Your task to perform on an android device: toggle wifi Image 0: 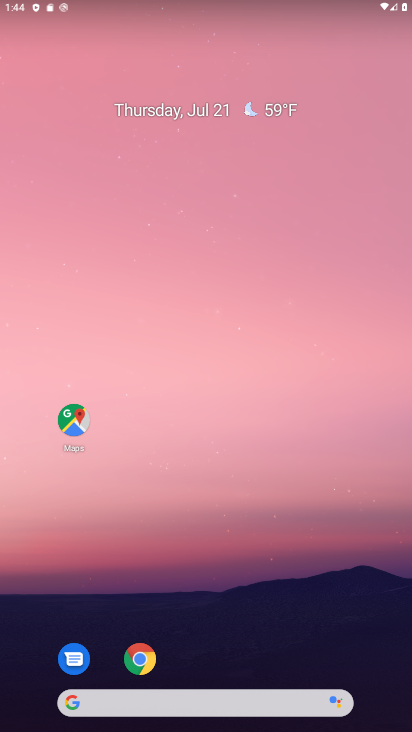
Step 0: drag from (193, 713) to (273, 41)
Your task to perform on an android device: toggle wifi Image 1: 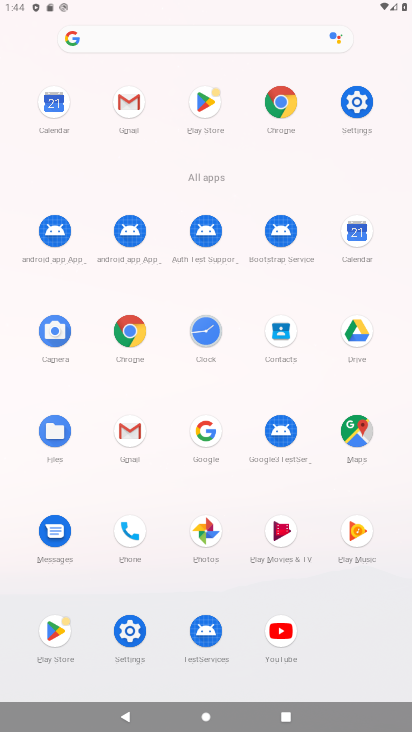
Step 1: click (366, 113)
Your task to perform on an android device: toggle wifi Image 2: 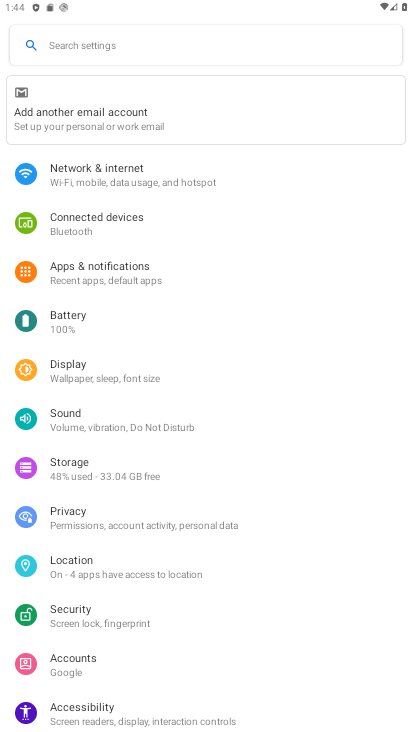
Step 2: click (115, 176)
Your task to perform on an android device: toggle wifi Image 3: 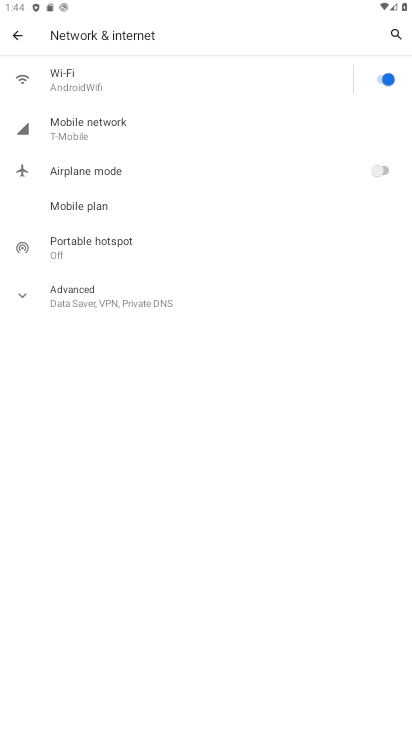
Step 3: click (380, 75)
Your task to perform on an android device: toggle wifi Image 4: 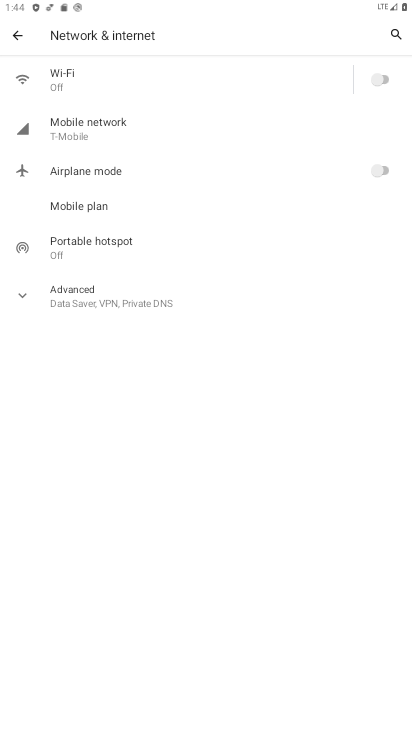
Step 4: task complete